Your task to perform on an android device: set the stopwatch Image 0: 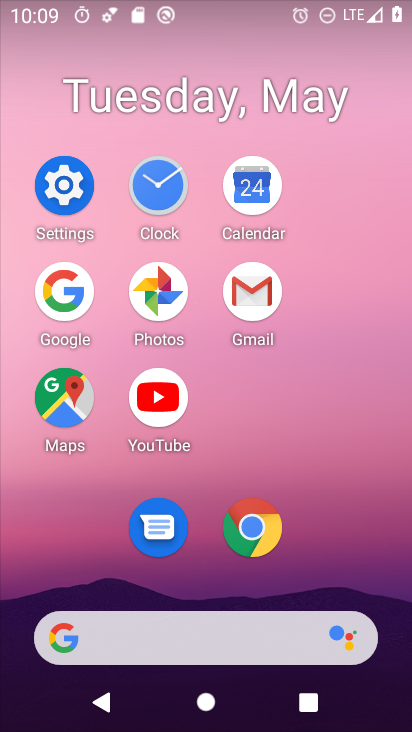
Step 0: click (149, 192)
Your task to perform on an android device: set the stopwatch Image 1: 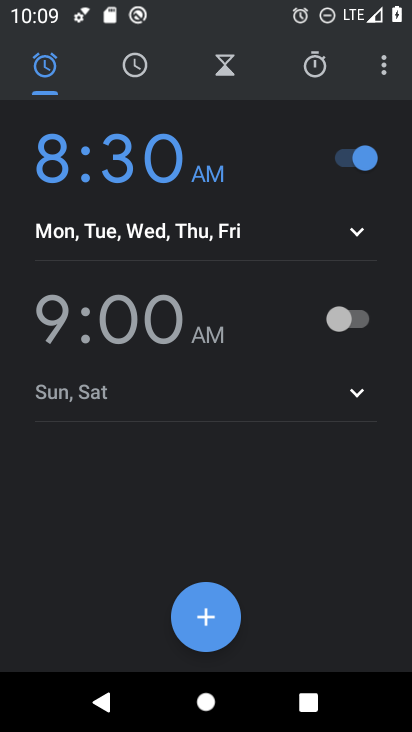
Step 1: click (321, 88)
Your task to perform on an android device: set the stopwatch Image 2: 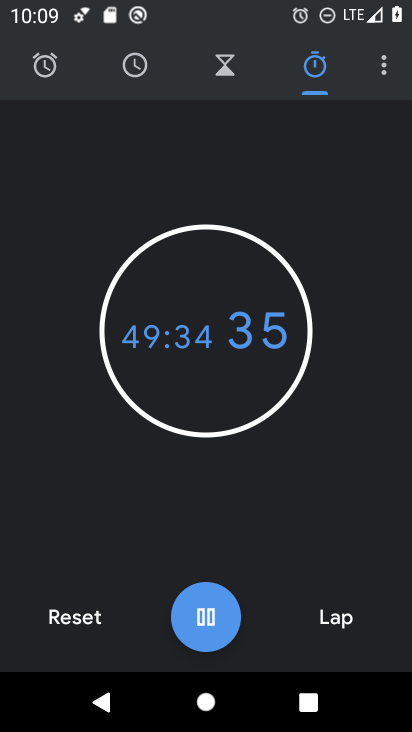
Step 2: click (75, 614)
Your task to perform on an android device: set the stopwatch Image 3: 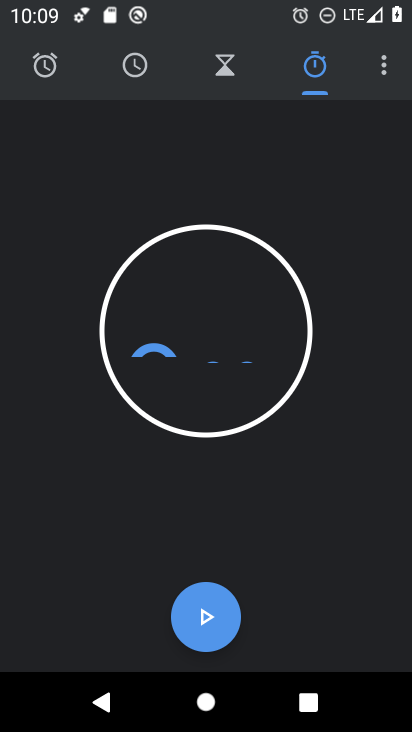
Step 3: click (204, 612)
Your task to perform on an android device: set the stopwatch Image 4: 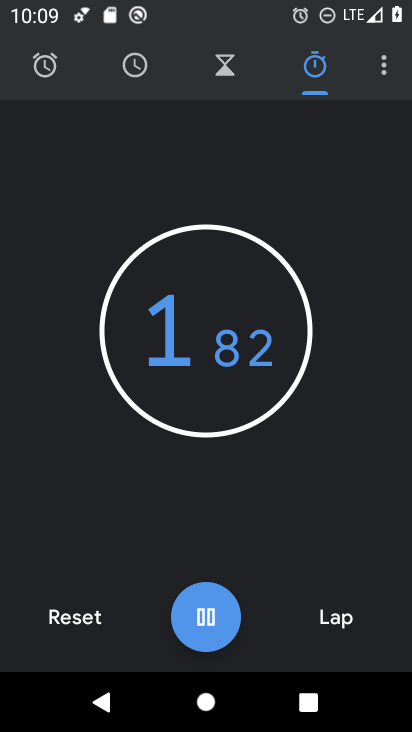
Step 4: task complete